Your task to perform on an android device: turn on location history Image 0: 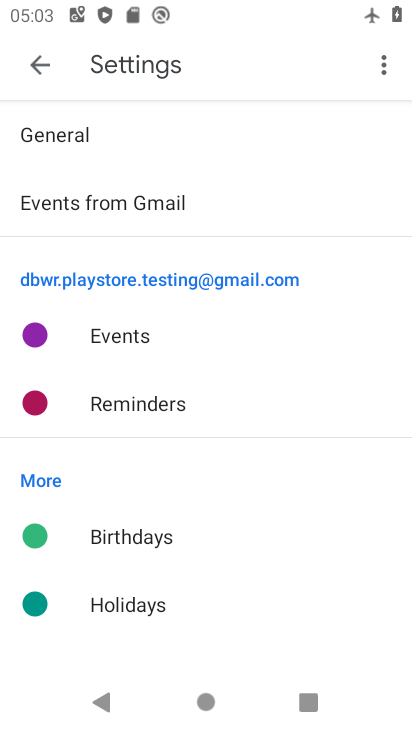
Step 0: press home button
Your task to perform on an android device: turn on location history Image 1: 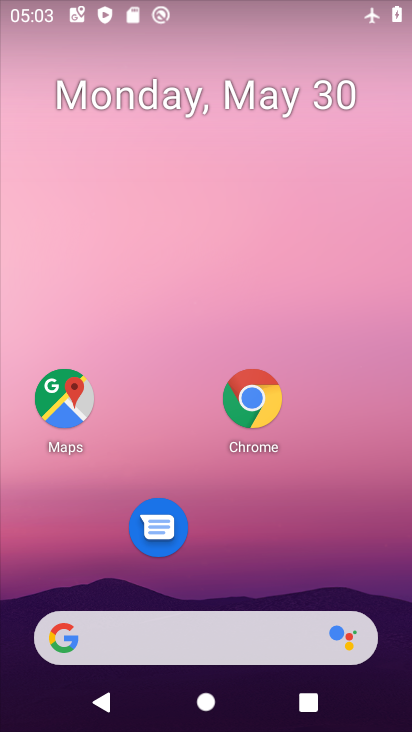
Step 1: drag from (232, 704) to (230, 91)
Your task to perform on an android device: turn on location history Image 2: 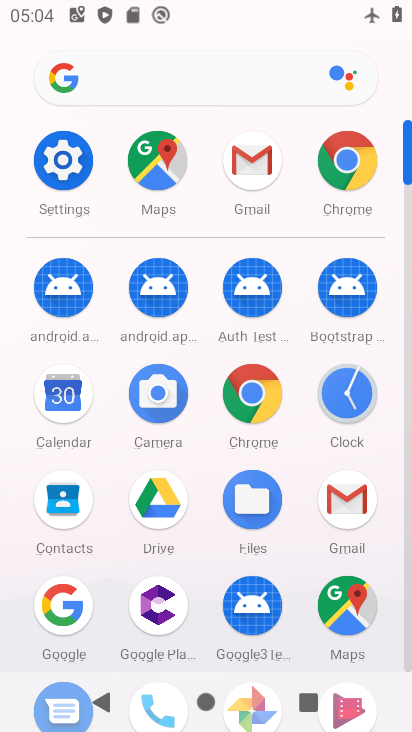
Step 2: click (59, 154)
Your task to perform on an android device: turn on location history Image 3: 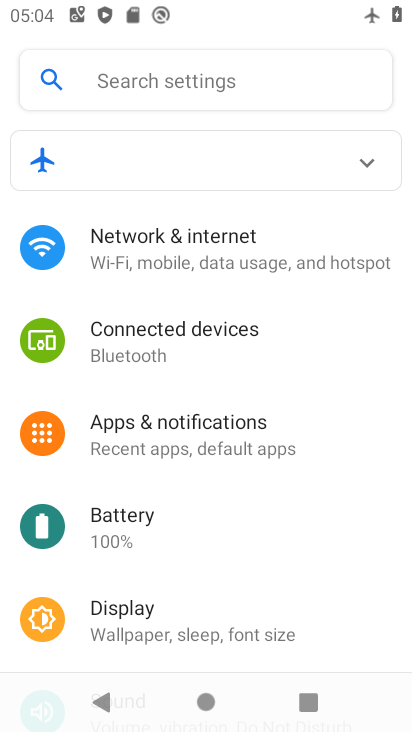
Step 3: drag from (166, 644) to (163, 208)
Your task to perform on an android device: turn on location history Image 4: 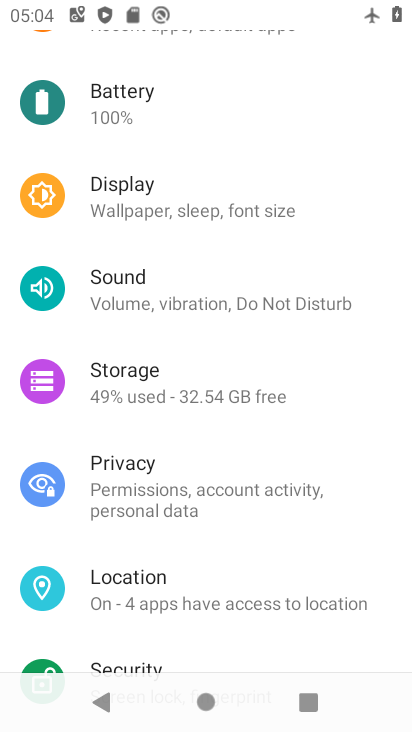
Step 4: click (153, 580)
Your task to perform on an android device: turn on location history Image 5: 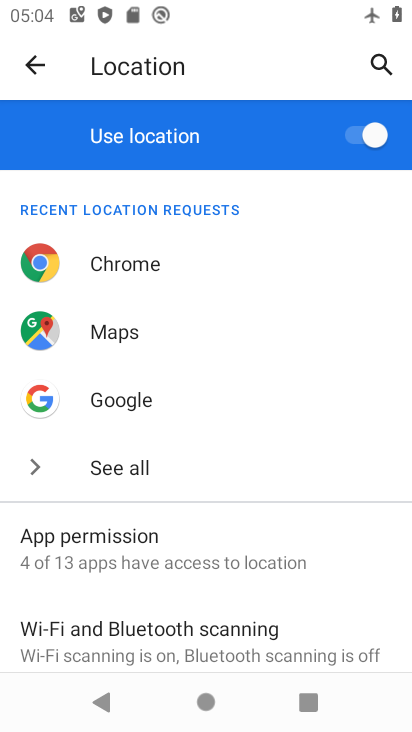
Step 5: drag from (188, 612) to (185, 216)
Your task to perform on an android device: turn on location history Image 6: 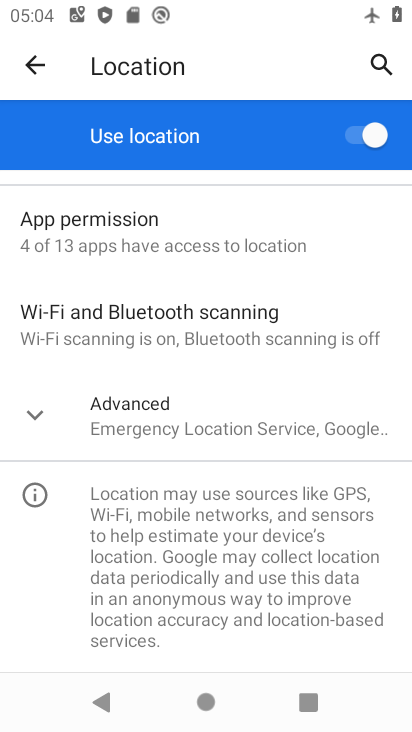
Step 6: click (164, 421)
Your task to perform on an android device: turn on location history Image 7: 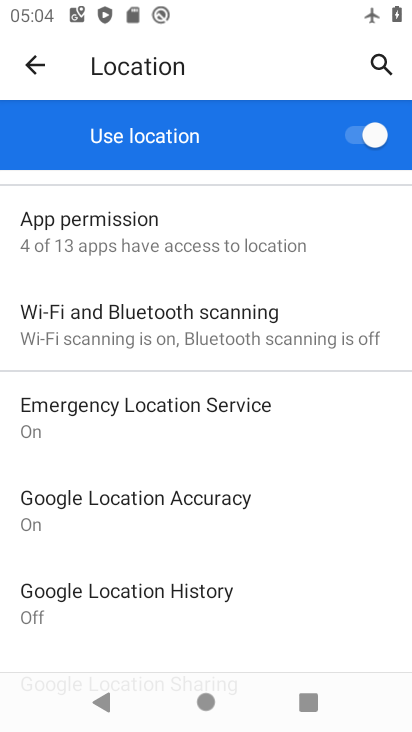
Step 7: click (168, 584)
Your task to perform on an android device: turn on location history Image 8: 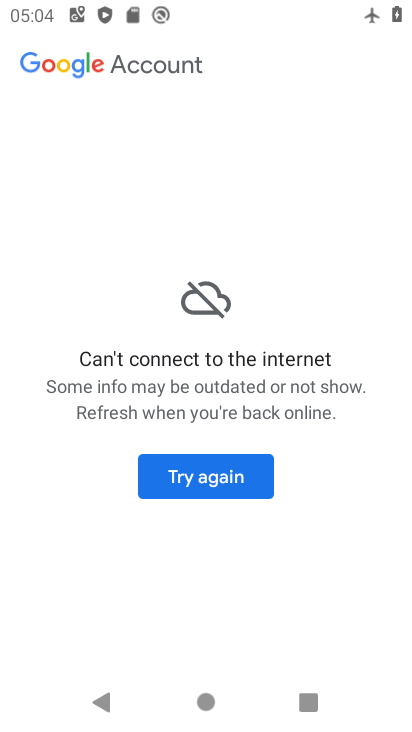
Step 8: task complete